Your task to perform on an android device: open app "Indeed Job Search" (install if not already installed) and go to login screen Image 0: 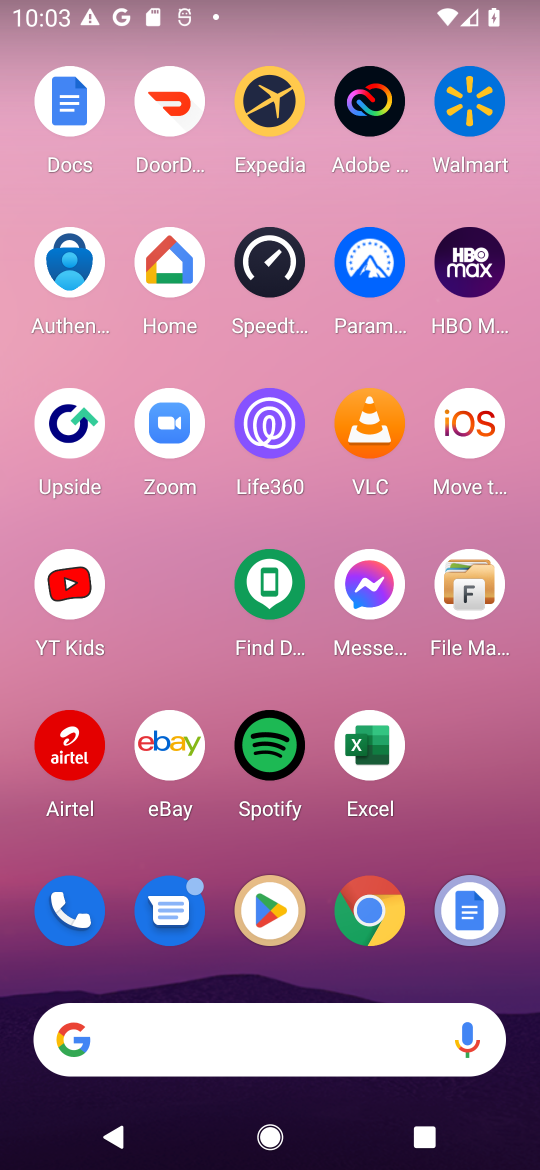
Step 0: click (287, 898)
Your task to perform on an android device: open app "Indeed Job Search" (install if not already installed) and go to login screen Image 1: 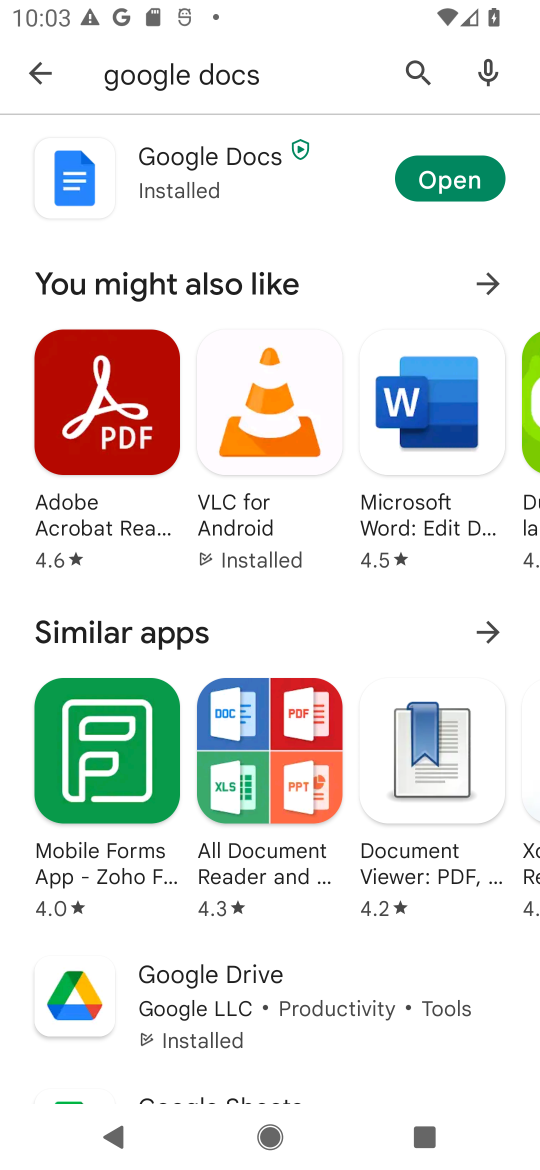
Step 1: click (416, 75)
Your task to perform on an android device: open app "Indeed Job Search" (install if not already installed) and go to login screen Image 2: 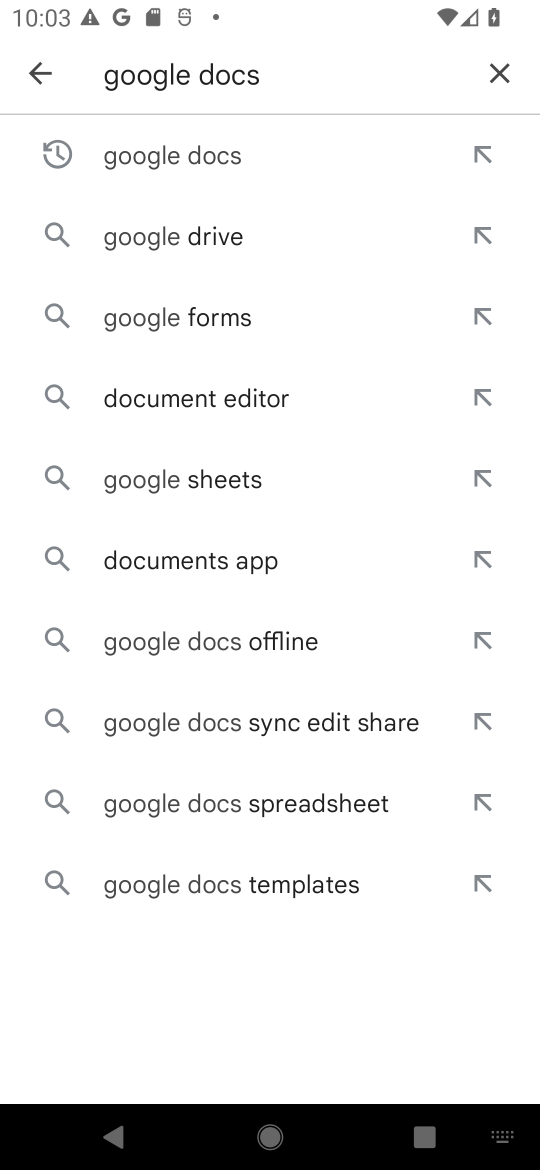
Step 2: click (509, 77)
Your task to perform on an android device: open app "Indeed Job Search" (install if not already installed) and go to login screen Image 3: 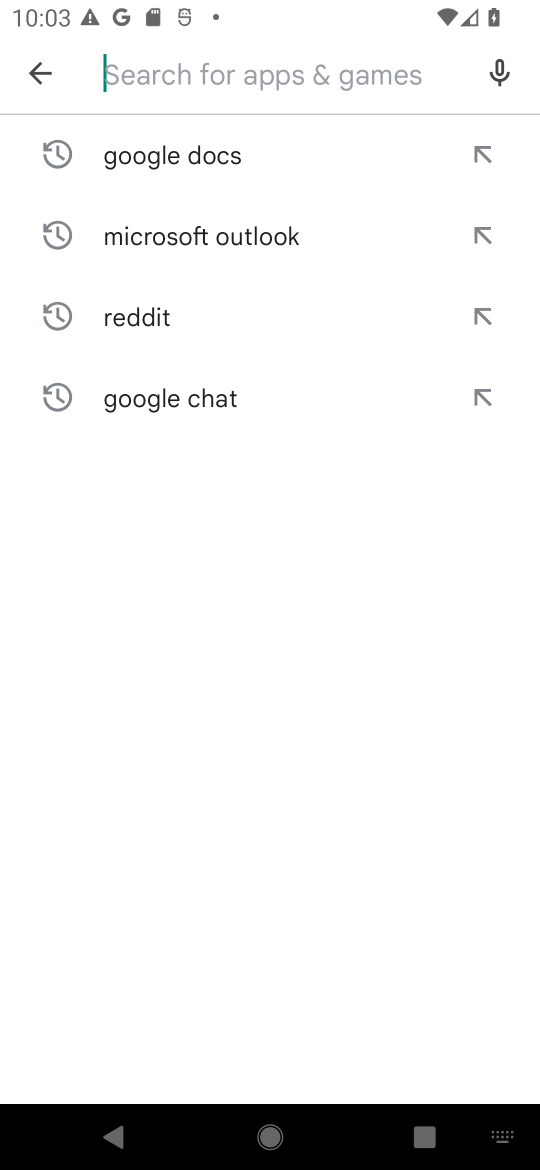
Step 3: type "Indeed Job Search"
Your task to perform on an android device: open app "Indeed Job Search" (install if not already installed) and go to login screen Image 4: 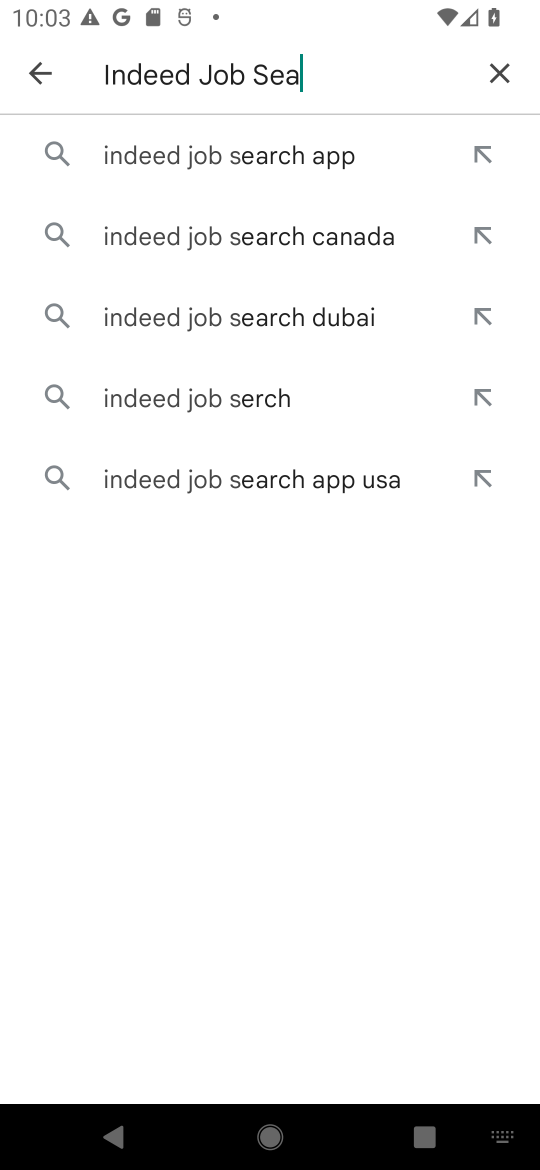
Step 4: type ""
Your task to perform on an android device: open app "Indeed Job Search" (install if not already installed) and go to login screen Image 5: 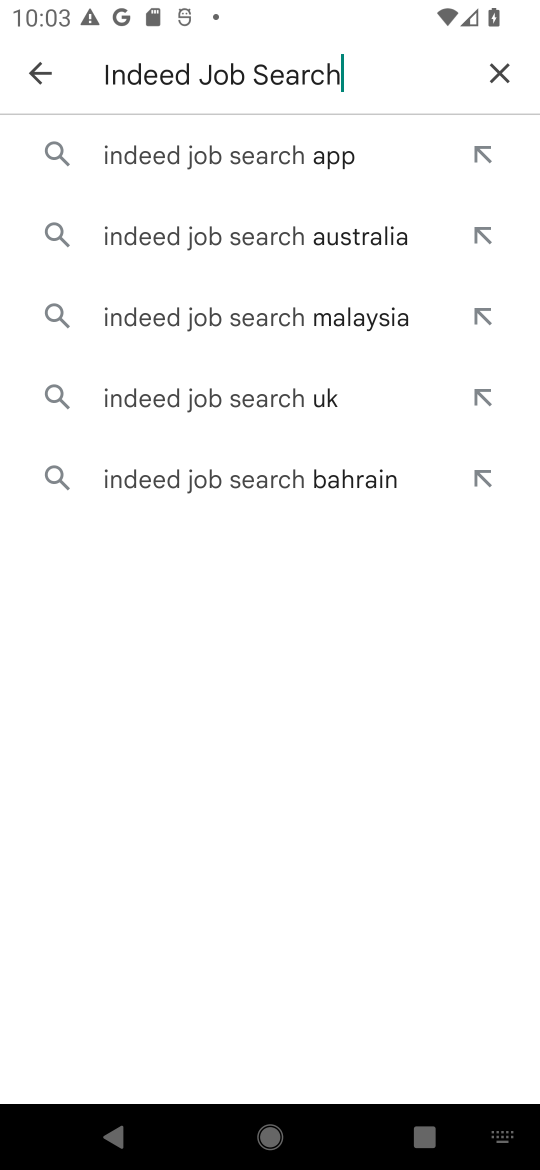
Step 5: click (291, 165)
Your task to perform on an android device: open app "Indeed Job Search" (install if not already installed) and go to login screen Image 6: 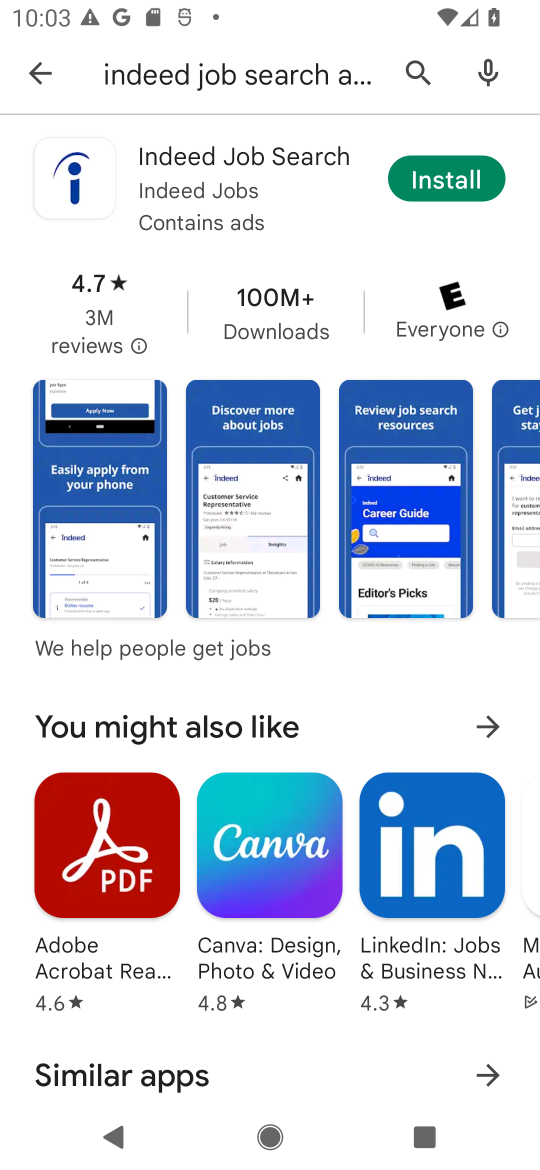
Step 6: click (438, 184)
Your task to perform on an android device: open app "Indeed Job Search" (install if not already installed) and go to login screen Image 7: 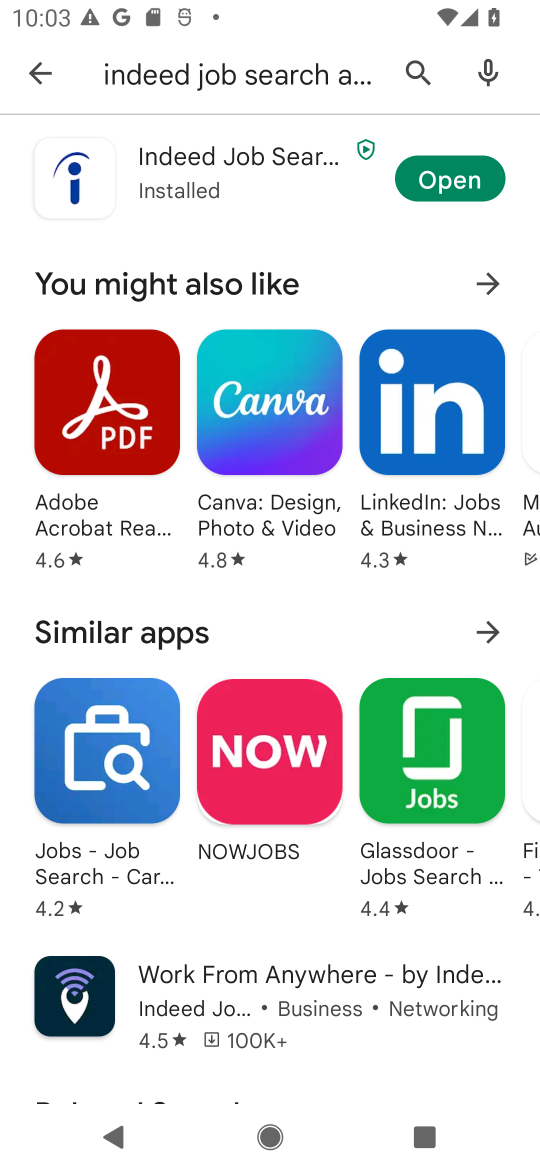
Step 7: click (428, 186)
Your task to perform on an android device: open app "Indeed Job Search" (install if not already installed) and go to login screen Image 8: 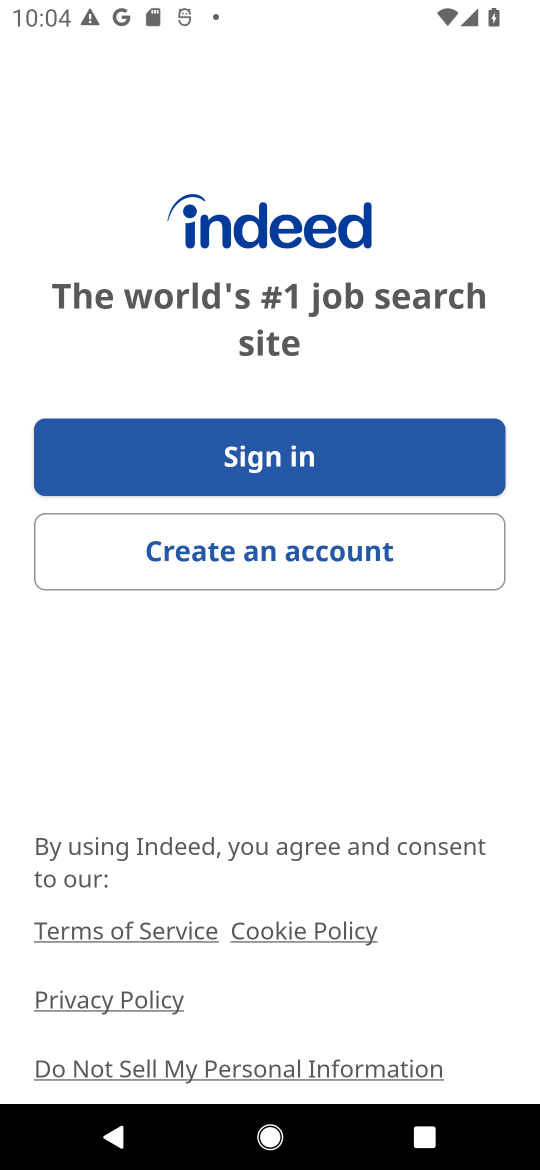
Step 8: task complete